Your task to perform on an android device: visit the assistant section in the google photos Image 0: 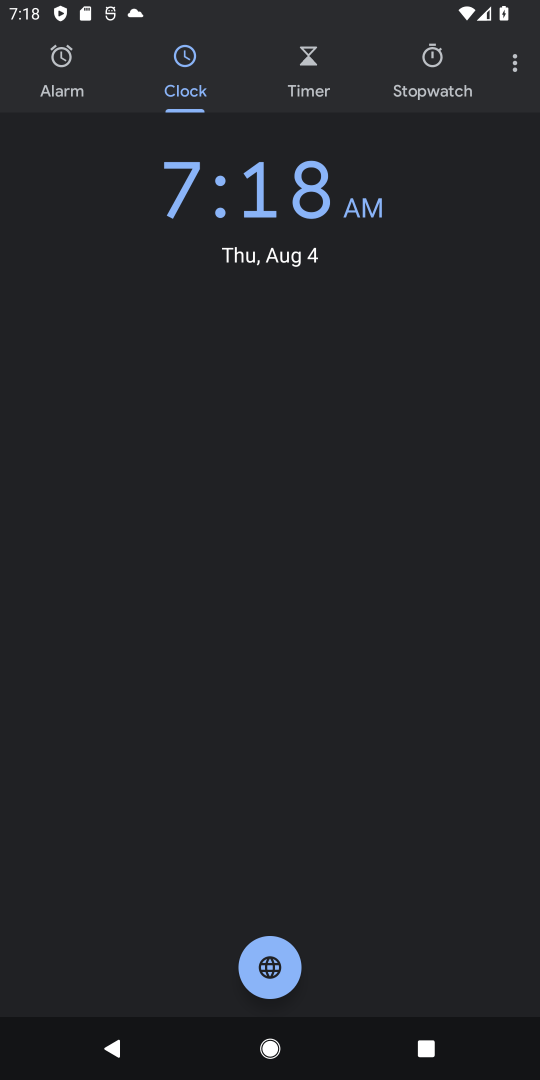
Step 0: press back button
Your task to perform on an android device: visit the assistant section in the google photos Image 1: 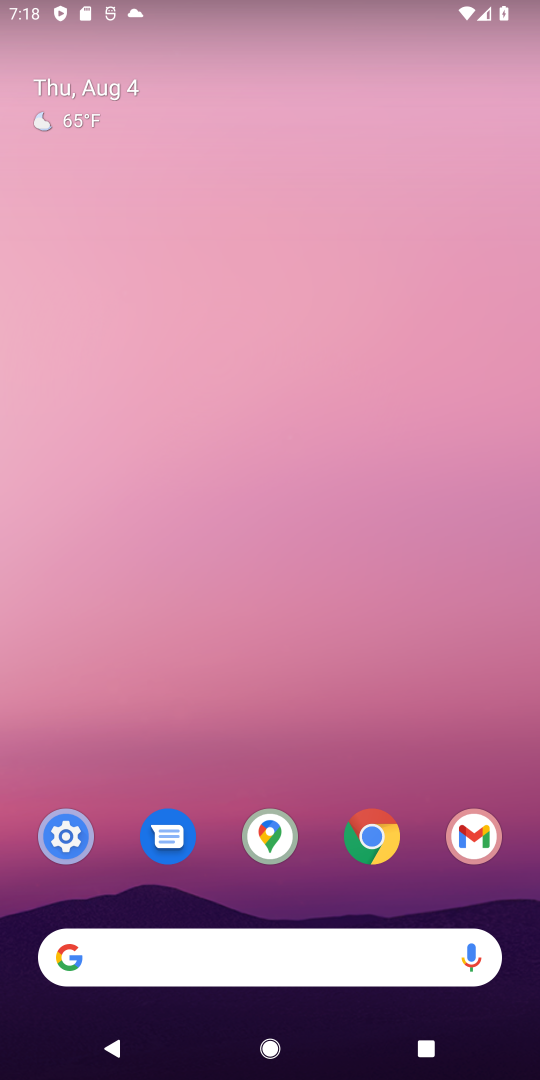
Step 1: drag from (203, 806) to (290, 28)
Your task to perform on an android device: visit the assistant section in the google photos Image 2: 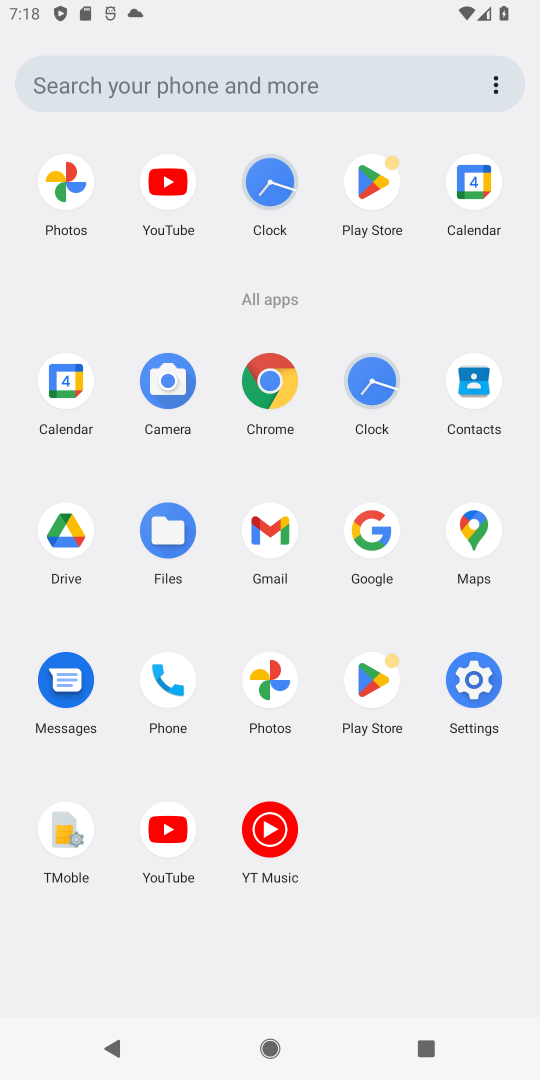
Step 2: click (277, 681)
Your task to perform on an android device: visit the assistant section in the google photos Image 3: 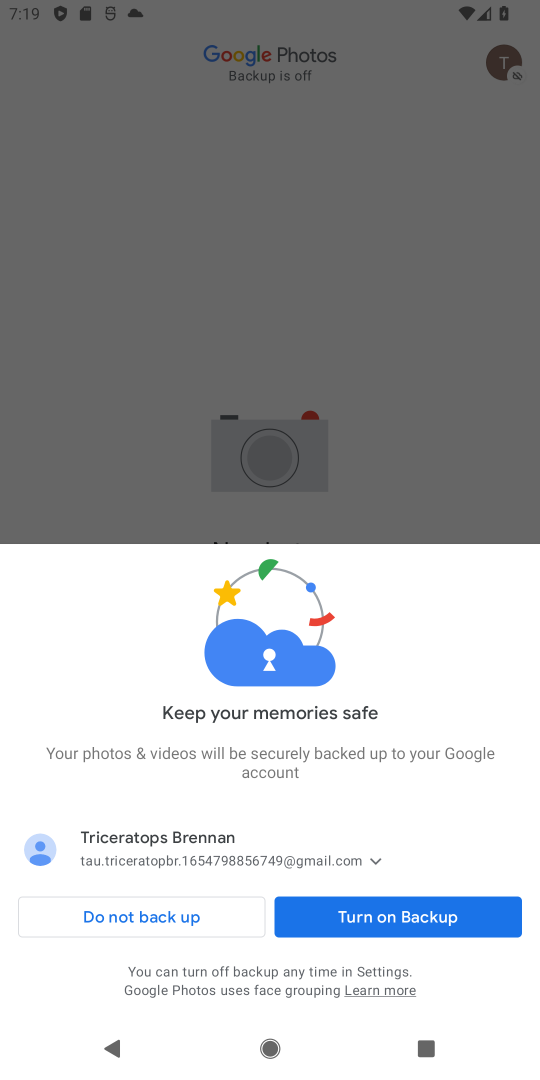
Step 3: click (176, 916)
Your task to perform on an android device: visit the assistant section in the google photos Image 4: 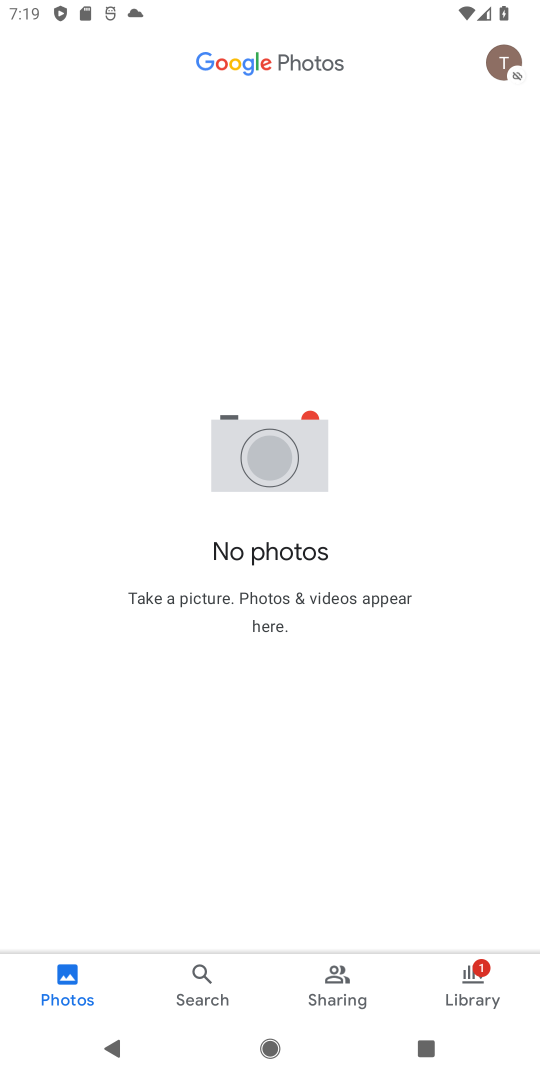
Step 4: click (493, 61)
Your task to perform on an android device: visit the assistant section in the google photos Image 5: 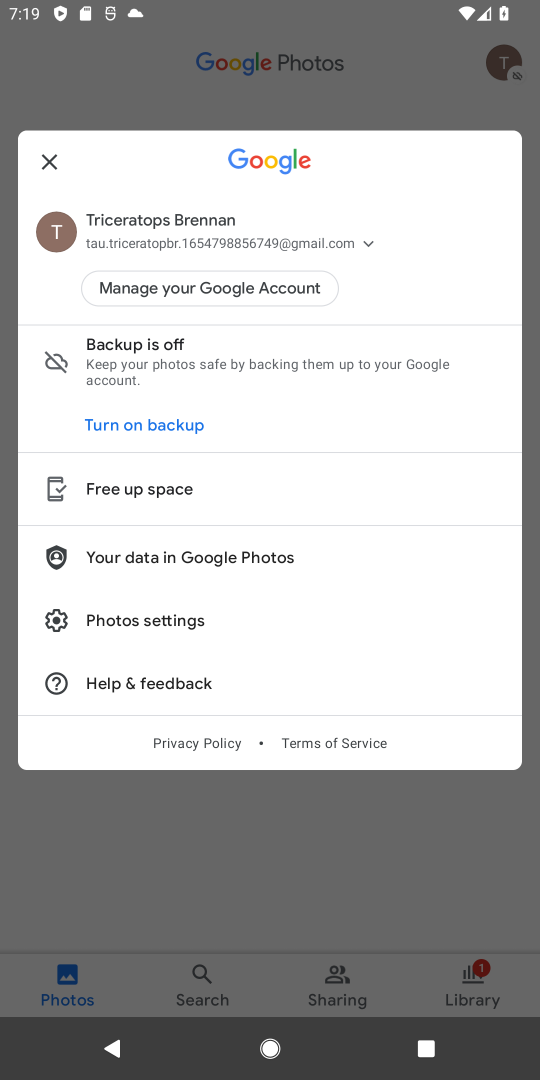
Step 5: task complete